Your task to perform on an android device: change timer sound Image 0: 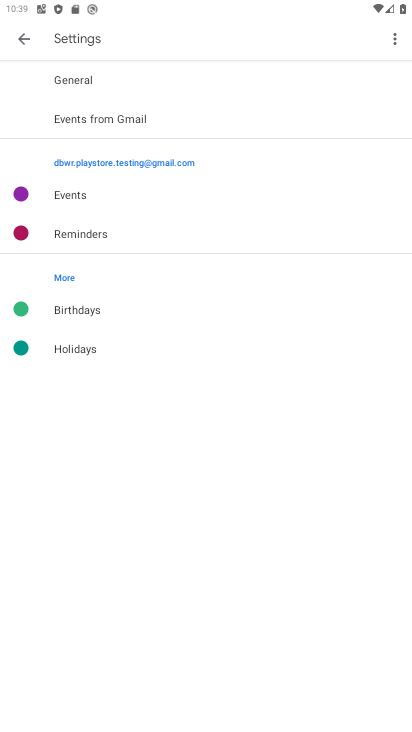
Step 0: press home button
Your task to perform on an android device: change timer sound Image 1: 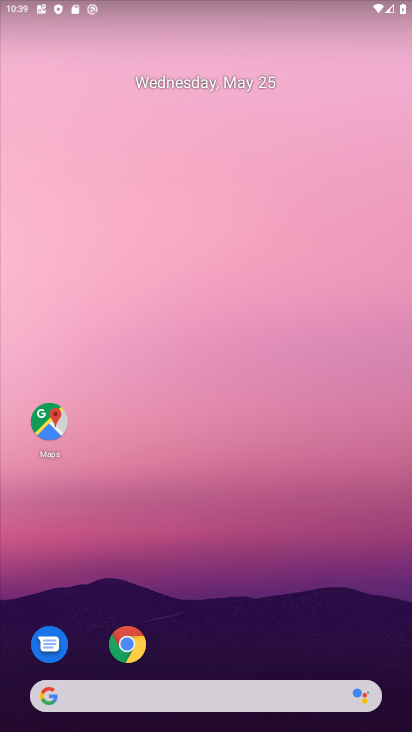
Step 1: drag from (253, 544) to (114, 73)
Your task to perform on an android device: change timer sound Image 2: 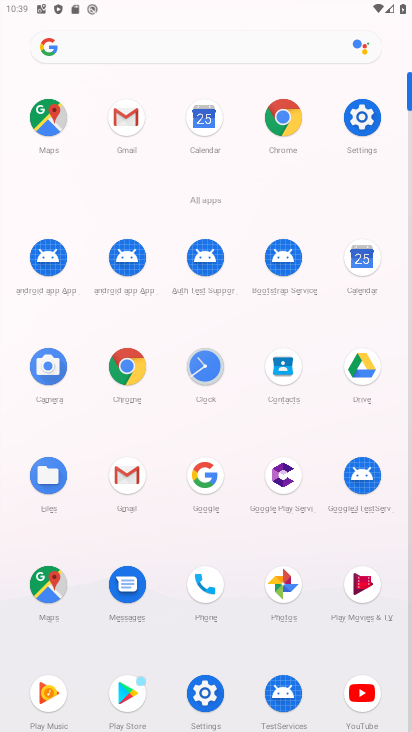
Step 2: click (203, 366)
Your task to perform on an android device: change timer sound Image 3: 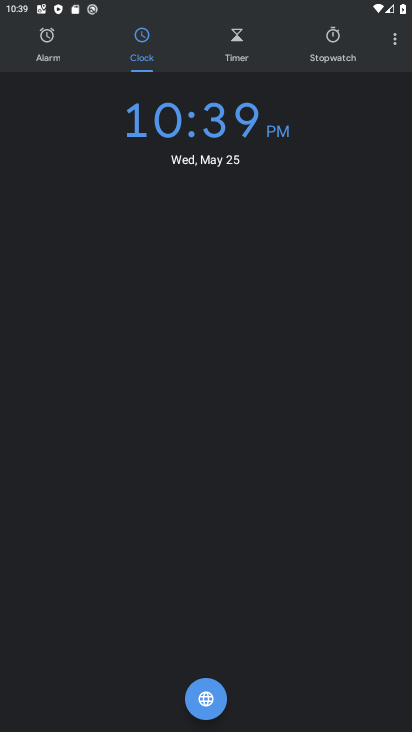
Step 3: click (240, 46)
Your task to perform on an android device: change timer sound Image 4: 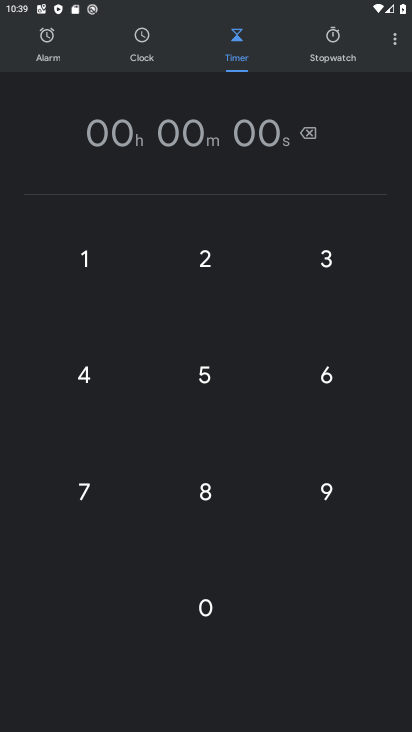
Step 4: click (90, 252)
Your task to perform on an android device: change timer sound Image 5: 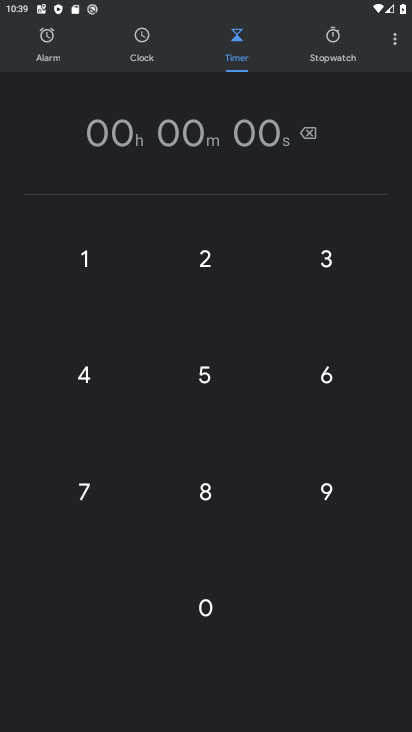
Step 5: click (90, 252)
Your task to perform on an android device: change timer sound Image 6: 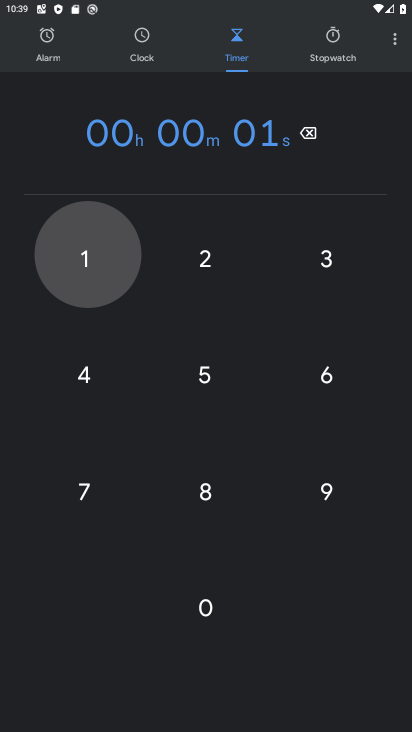
Step 6: click (90, 252)
Your task to perform on an android device: change timer sound Image 7: 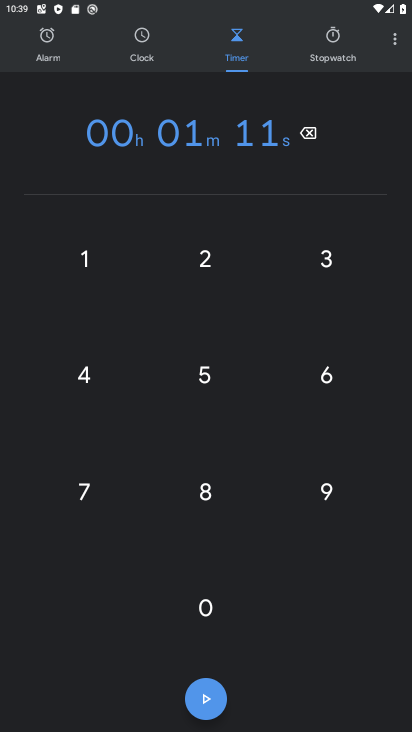
Step 7: click (90, 252)
Your task to perform on an android device: change timer sound Image 8: 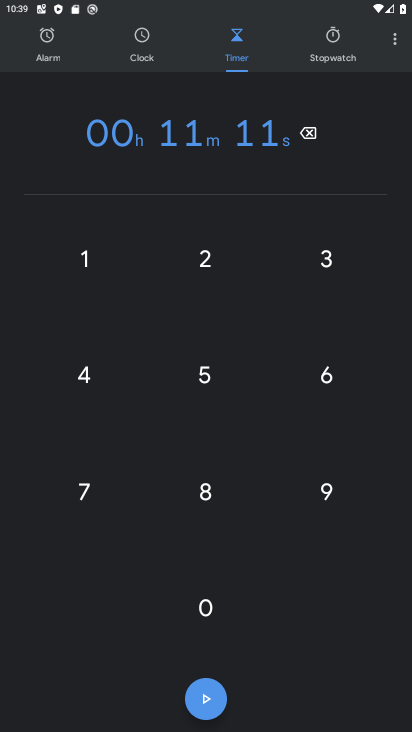
Step 8: click (90, 252)
Your task to perform on an android device: change timer sound Image 9: 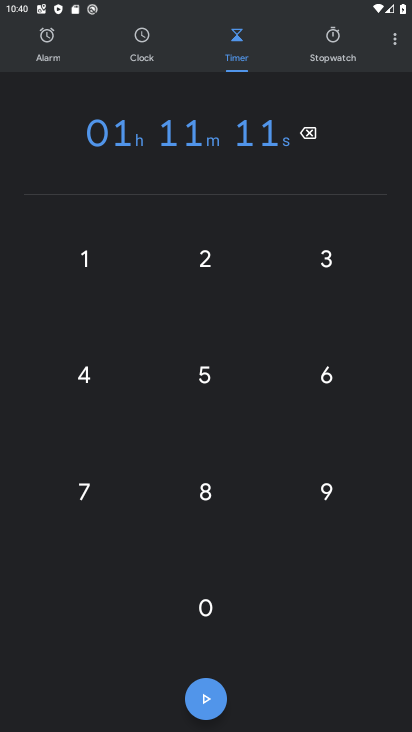
Step 9: task complete